Your task to perform on an android device: Open Chrome and go to settings Image 0: 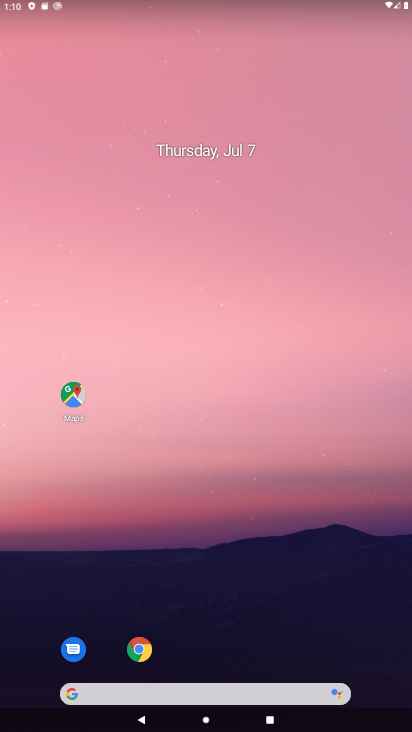
Step 0: click (139, 651)
Your task to perform on an android device: Open Chrome and go to settings Image 1: 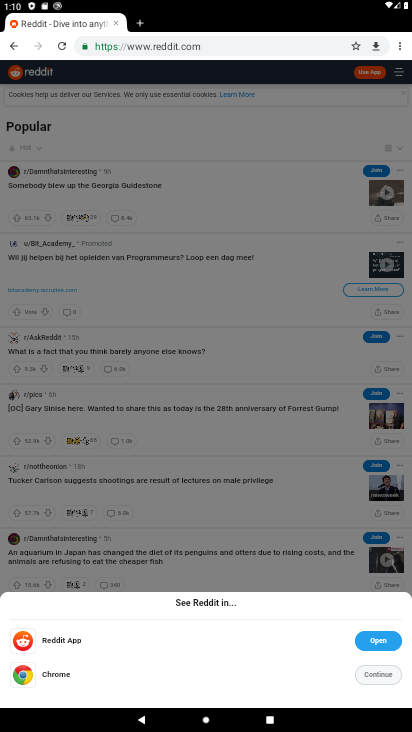
Step 1: click (399, 50)
Your task to perform on an android device: Open Chrome and go to settings Image 2: 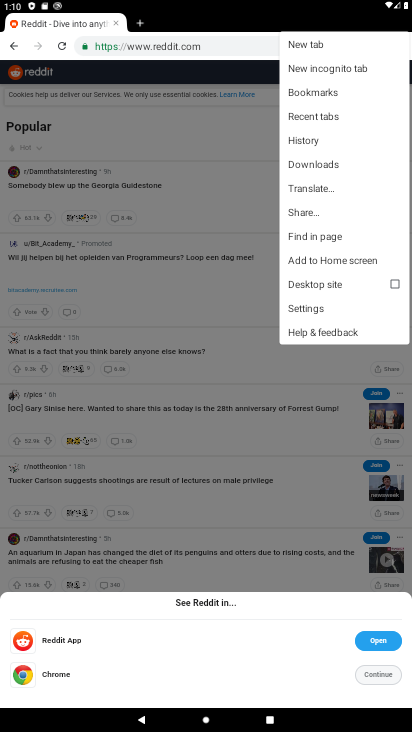
Step 2: click (303, 306)
Your task to perform on an android device: Open Chrome and go to settings Image 3: 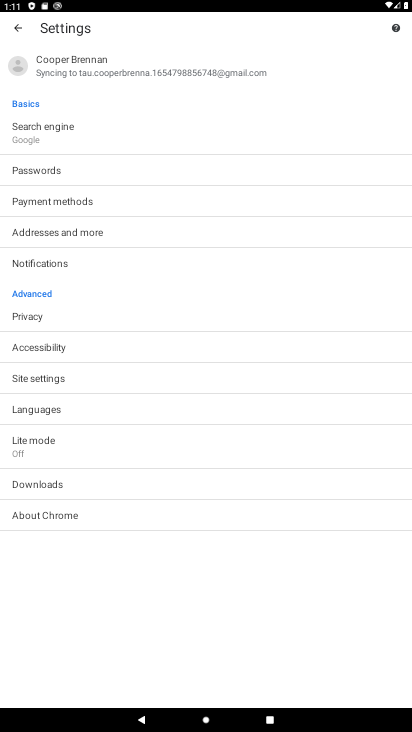
Step 3: task complete